Your task to perform on an android device: visit the assistant section in the google photos Image 0: 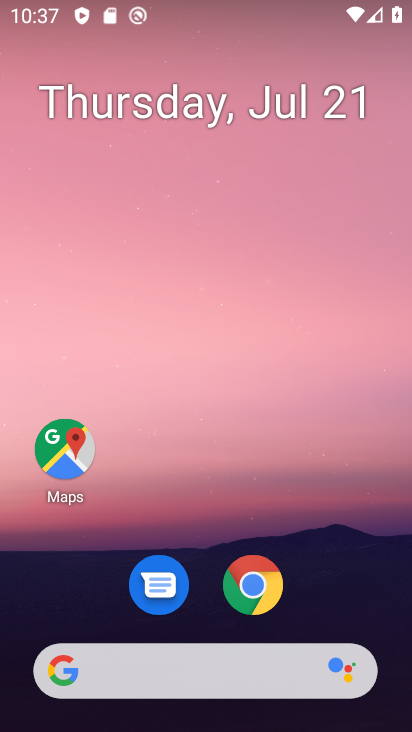
Step 0: drag from (272, 687) to (331, 443)
Your task to perform on an android device: visit the assistant section in the google photos Image 1: 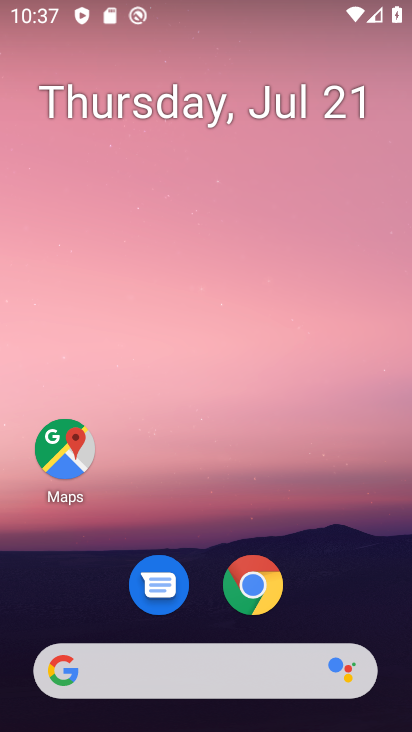
Step 1: drag from (203, 675) to (323, 207)
Your task to perform on an android device: visit the assistant section in the google photos Image 2: 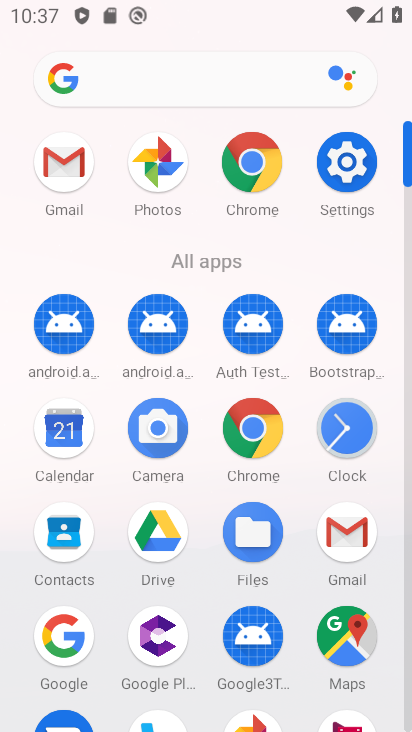
Step 2: drag from (225, 551) to (378, 94)
Your task to perform on an android device: visit the assistant section in the google photos Image 3: 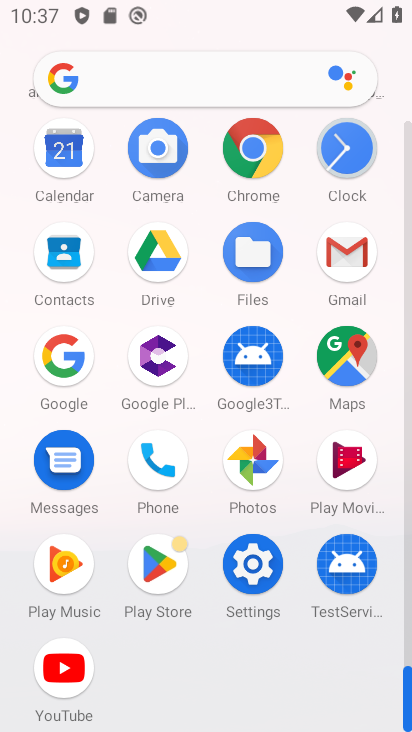
Step 3: click (255, 465)
Your task to perform on an android device: visit the assistant section in the google photos Image 4: 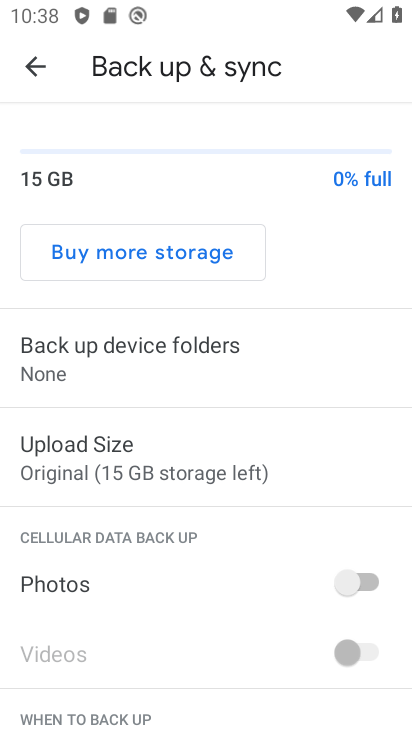
Step 4: click (38, 63)
Your task to perform on an android device: visit the assistant section in the google photos Image 5: 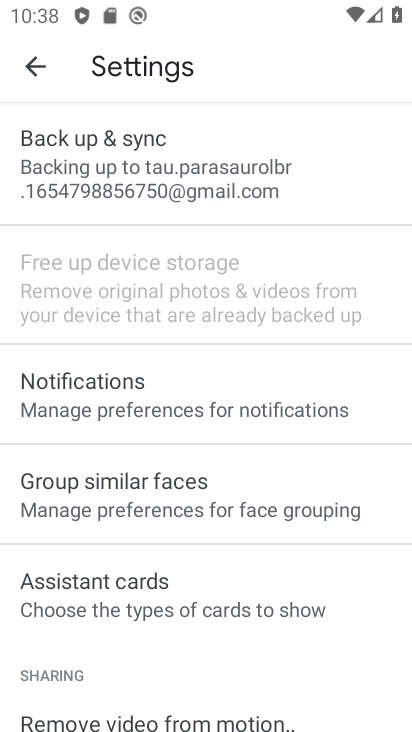
Step 5: click (41, 65)
Your task to perform on an android device: visit the assistant section in the google photos Image 6: 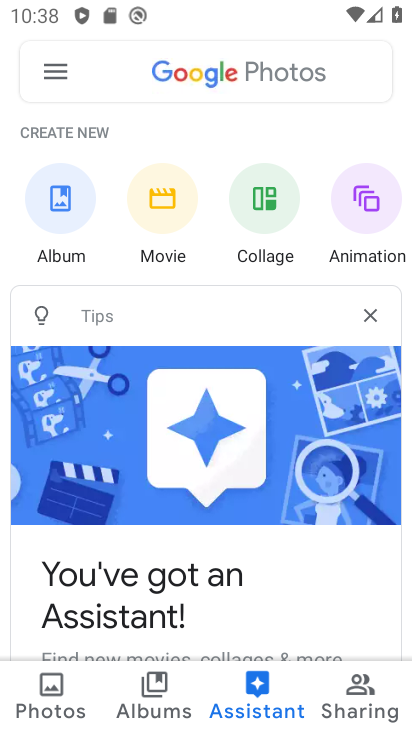
Step 6: task complete